Your task to perform on an android device: change the clock display to digital Image 0: 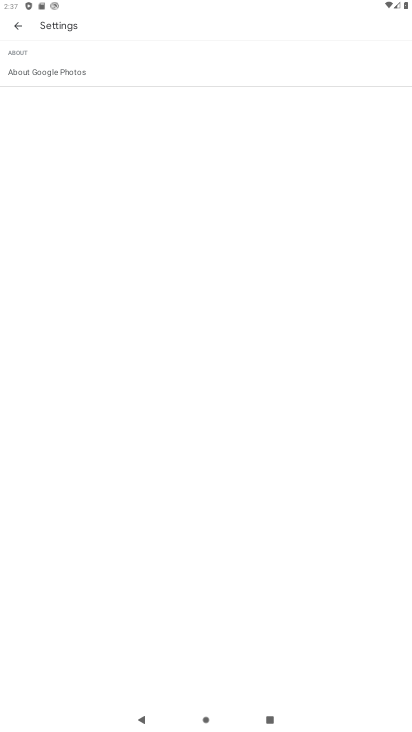
Step 0: press home button
Your task to perform on an android device: change the clock display to digital Image 1: 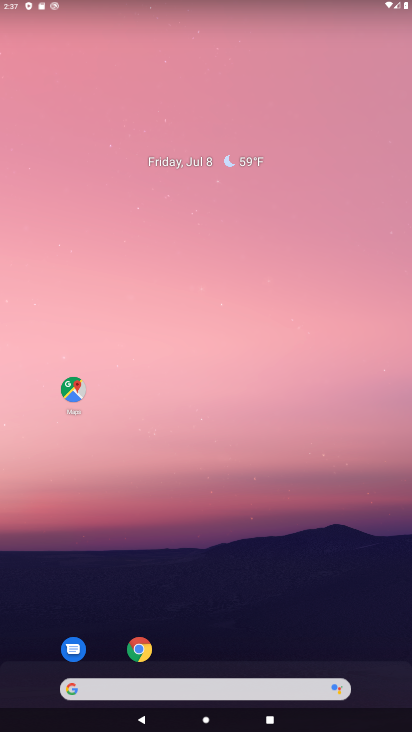
Step 1: drag from (288, 617) to (265, 80)
Your task to perform on an android device: change the clock display to digital Image 2: 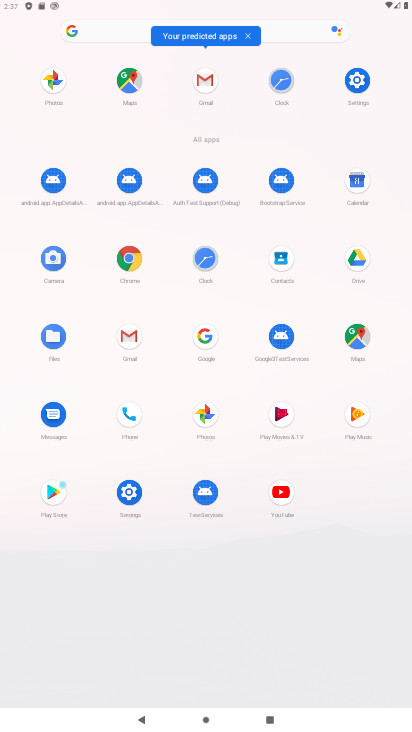
Step 2: click (276, 82)
Your task to perform on an android device: change the clock display to digital Image 3: 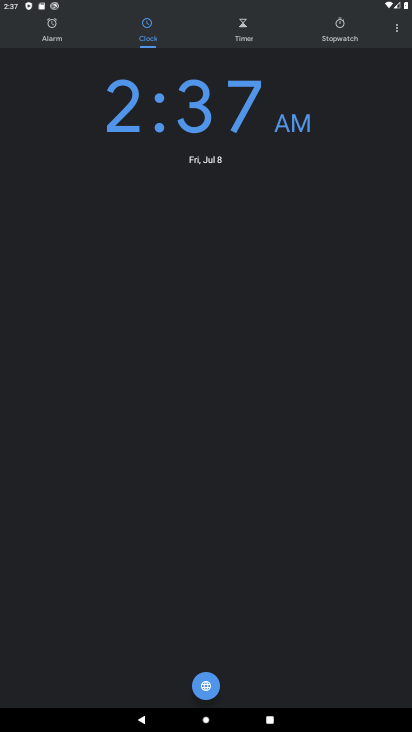
Step 3: click (403, 25)
Your task to perform on an android device: change the clock display to digital Image 4: 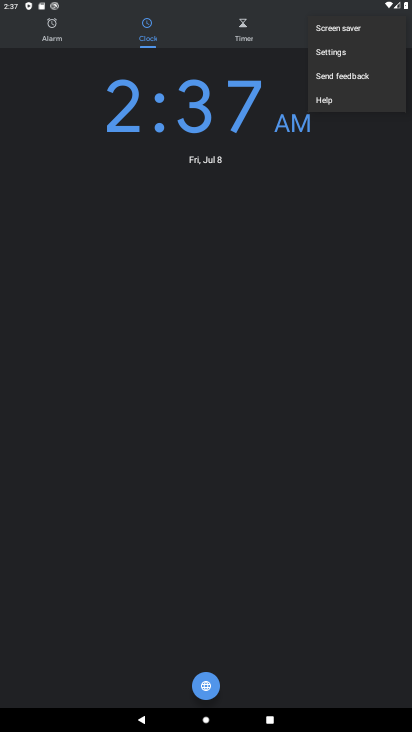
Step 4: click (353, 59)
Your task to perform on an android device: change the clock display to digital Image 5: 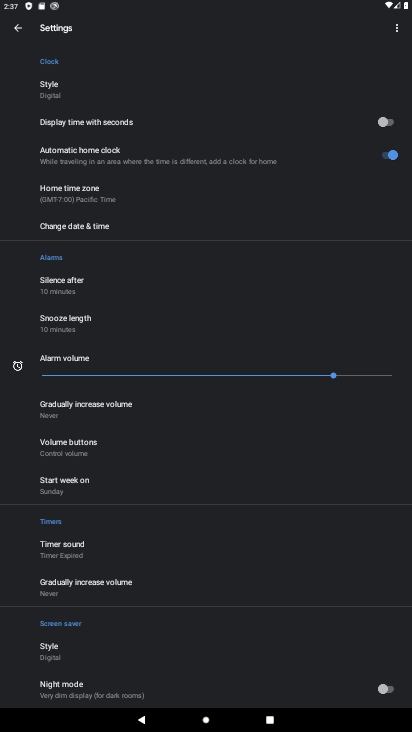
Step 5: task complete